Your task to perform on an android device: Open settings on Google Maps Image 0: 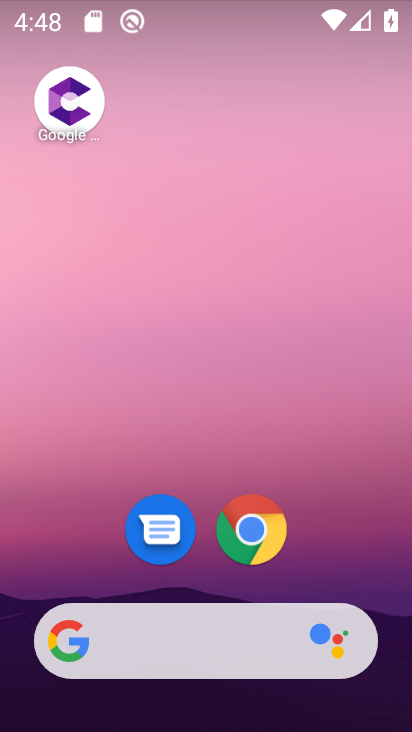
Step 0: drag from (317, 590) to (320, 186)
Your task to perform on an android device: Open settings on Google Maps Image 1: 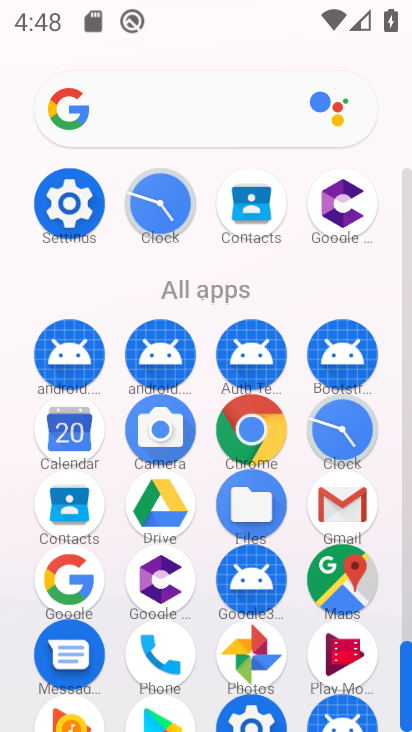
Step 1: click (337, 594)
Your task to perform on an android device: Open settings on Google Maps Image 2: 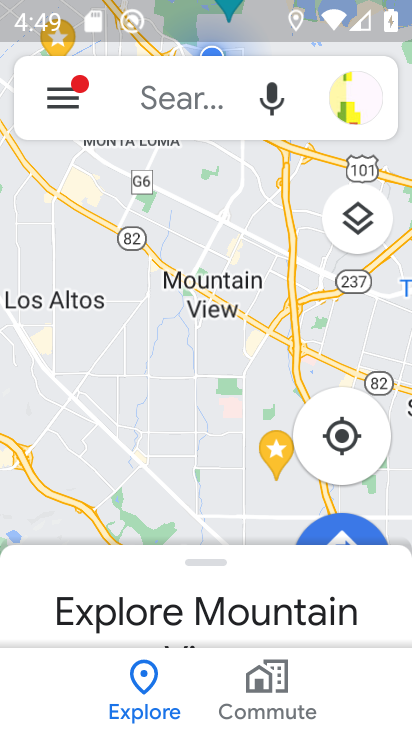
Step 2: press home button
Your task to perform on an android device: Open settings on Google Maps Image 3: 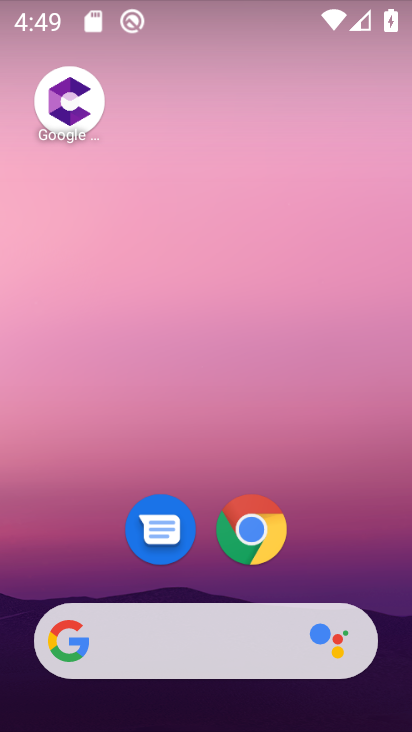
Step 3: drag from (126, 456) to (201, 10)
Your task to perform on an android device: Open settings on Google Maps Image 4: 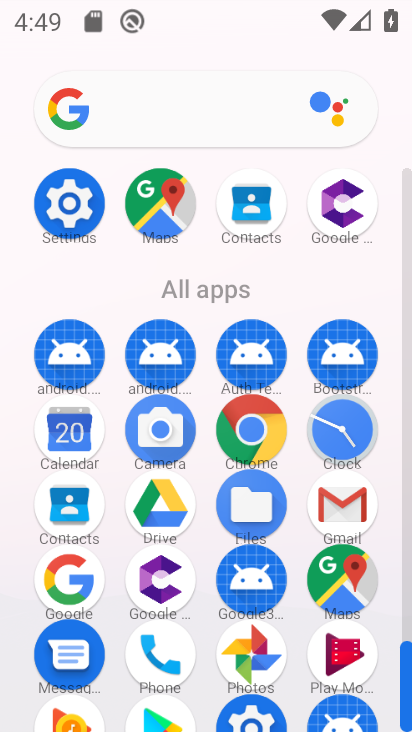
Step 4: click (168, 219)
Your task to perform on an android device: Open settings on Google Maps Image 5: 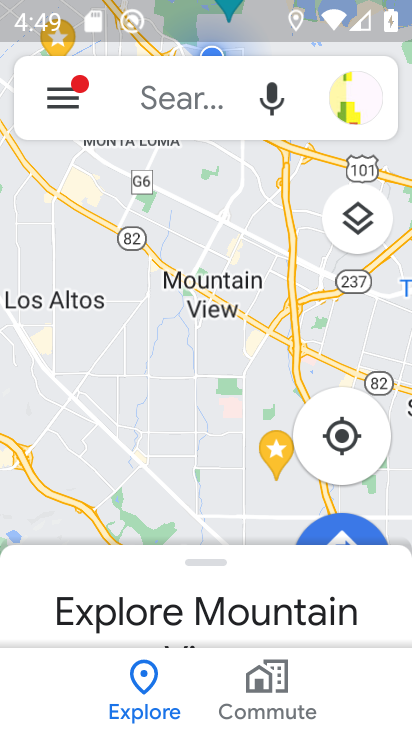
Step 5: click (66, 102)
Your task to perform on an android device: Open settings on Google Maps Image 6: 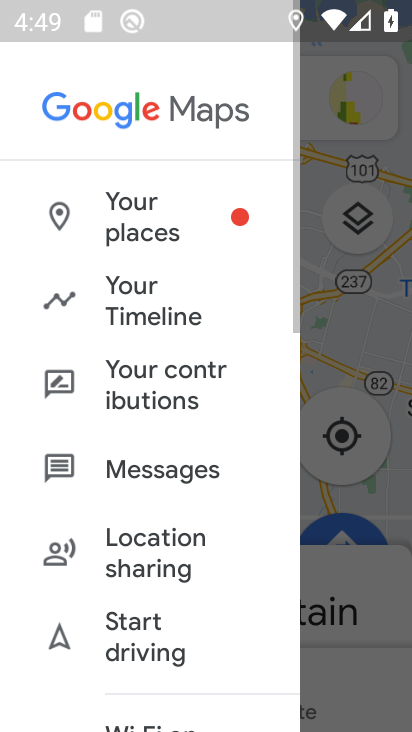
Step 6: drag from (178, 643) to (220, 254)
Your task to perform on an android device: Open settings on Google Maps Image 7: 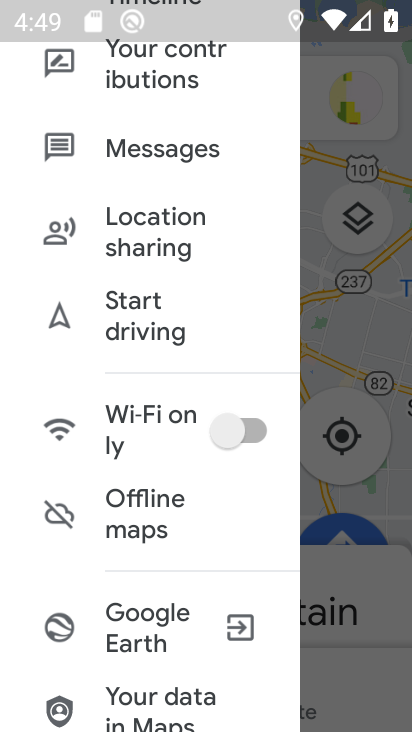
Step 7: drag from (157, 641) to (178, 288)
Your task to perform on an android device: Open settings on Google Maps Image 8: 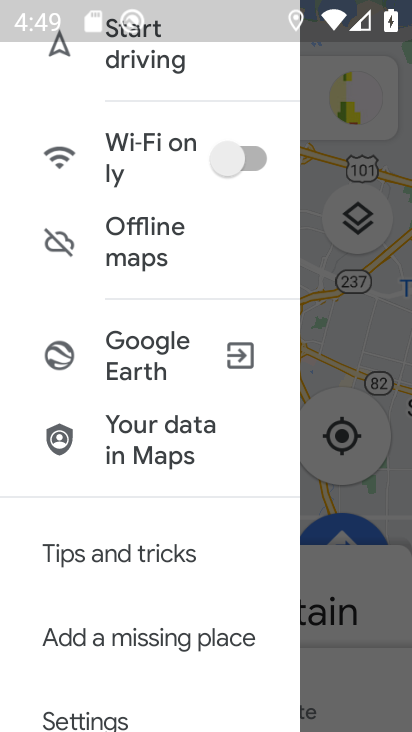
Step 8: drag from (153, 670) to (177, 483)
Your task to perform on an android device: Open settings on Google Maps Image 9: 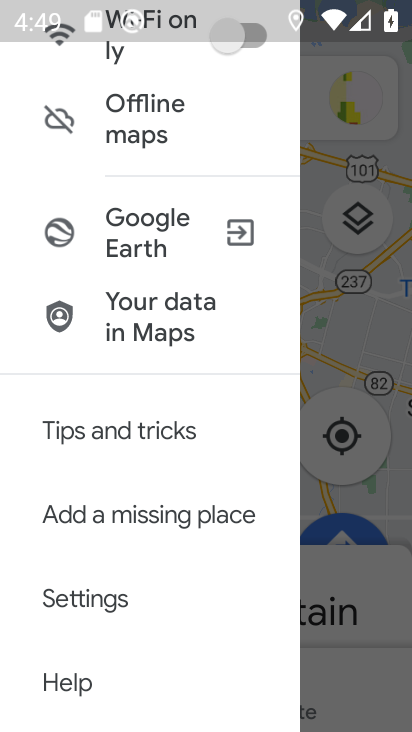
Step 9: click (103, 605)
Your task to perform on an android device: Open settings on Google Maps Image 10: 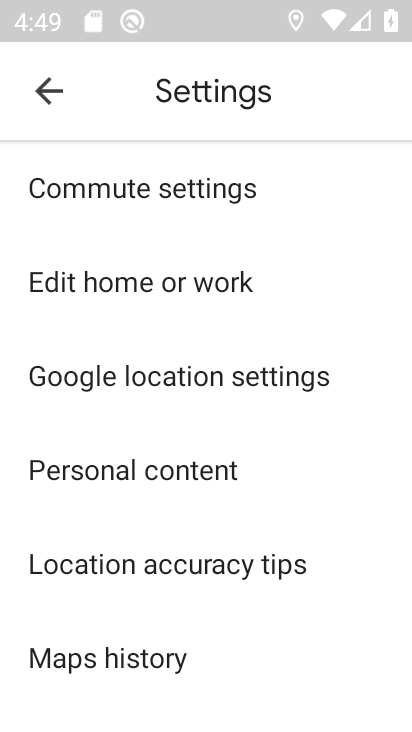
Step 10: task complete